Your task to perform on an android device: Open accessibility settings Image 0: 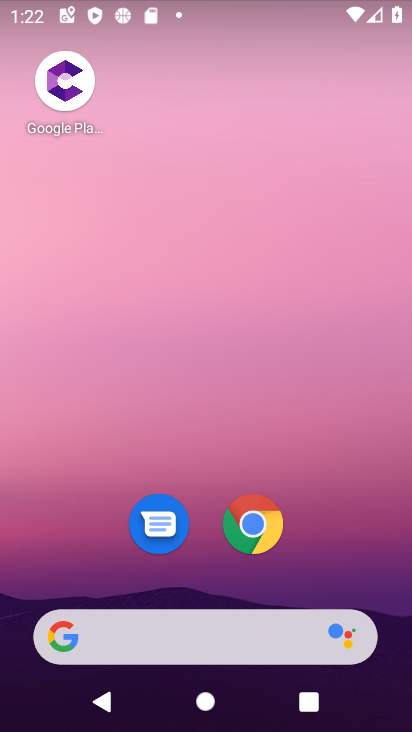
Step 0: drag from (315, 439) to (286, 18)
Your task to perform on an android device: Open accessibility settings Image 1: 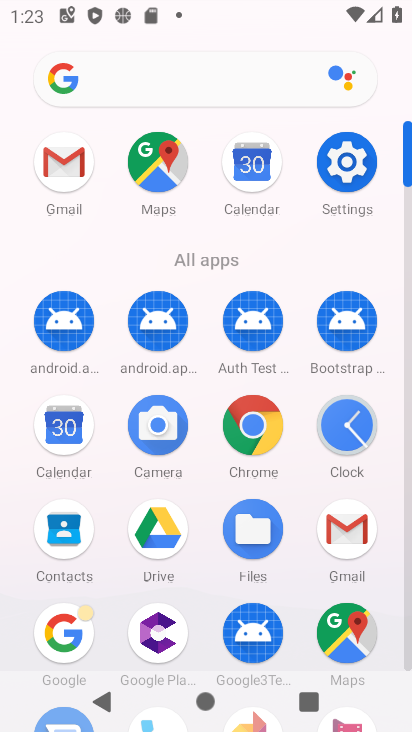
Step 1: click (332, 162)
Your task to perform on an android device: Open accessibility settings Image 2: 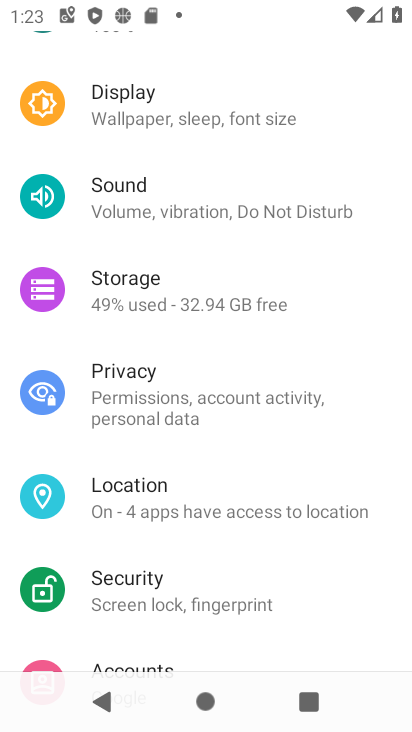
Step 2: drag from (268, 563) to (239, 169)
Your task to perform on an android device: Open accessibility settings Image 3: 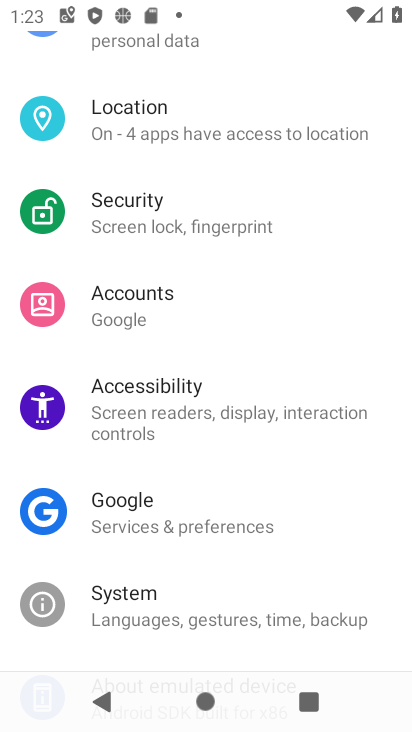
Step 3: click (239, 389)
Your task to perform on an android device: Open accessibility settings Image 4: 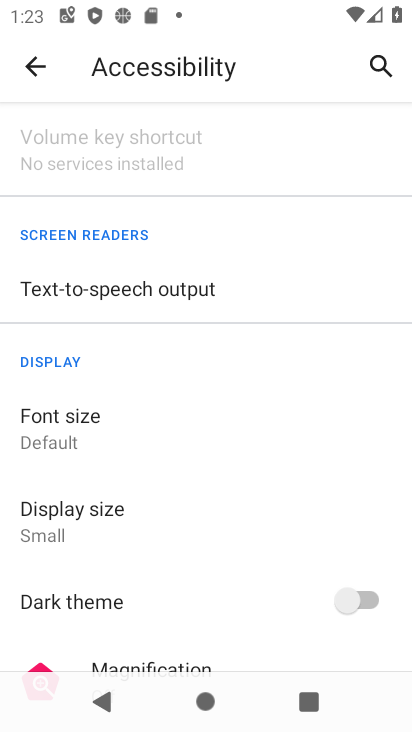
Step 4: task complete